Your task to perform on an android device: empty trash in google photos Image 0: 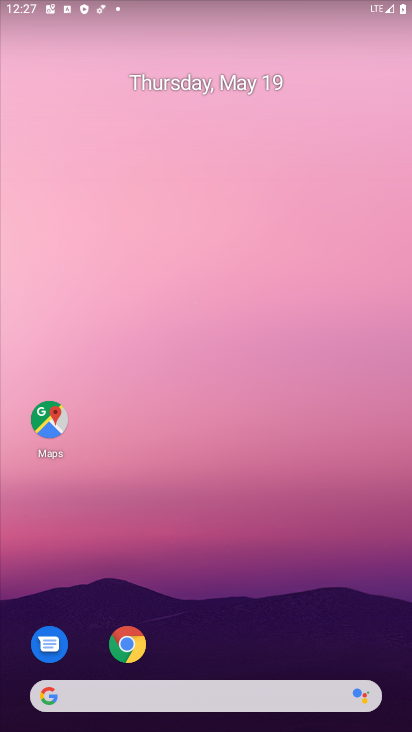
Step 0: drag from (393, 650) to (261, 60)
Your task to perform on an android device: empty trash in google photos Image 1: 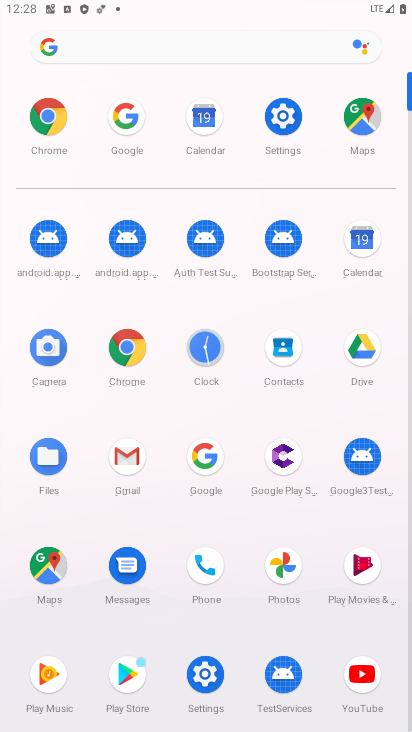
Step 1: click (285, 571)
Your task to perform on an android device: empty trash in google photos Image 2: 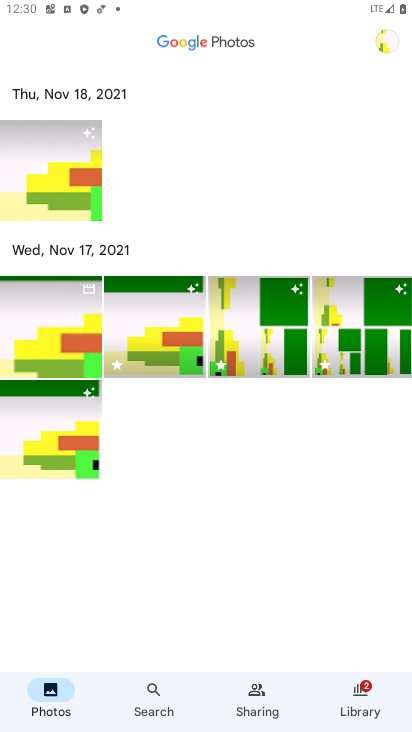
Step 2: click (356, 711)
Your task to perform on an android device: empty trash in google photos Image 3: 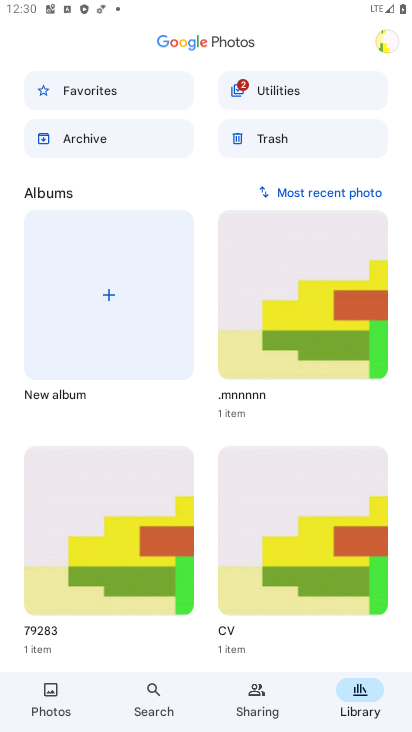
Step 3: click (283, 141)
Your task to perform on an android device: empty trash in google photos Image 4: 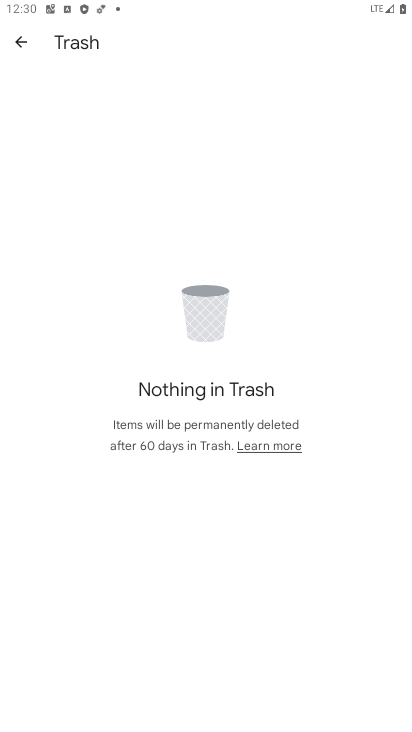
Step 4: task complete